Your task to perform on an android device: Open maps Image 0: 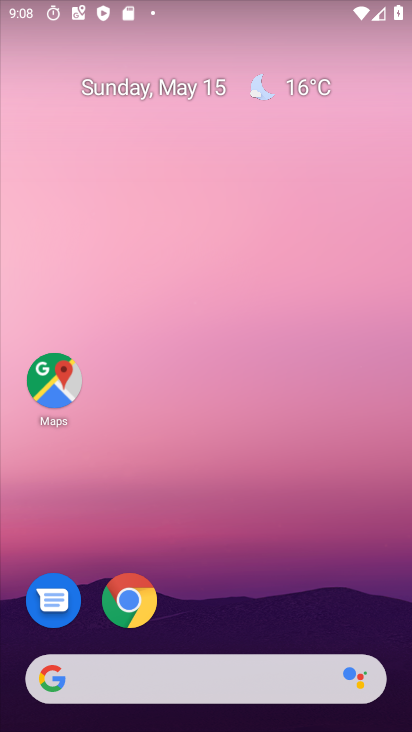
Step 0: click (53, 378)
Your task to perform on an android device: Open maps Image 1: 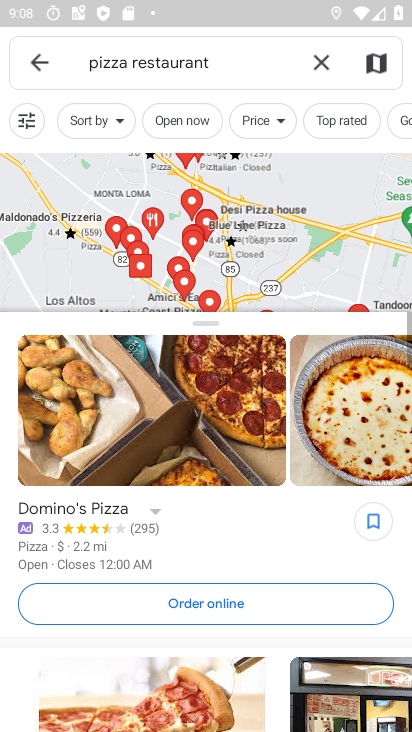
Step 1: task complete